Your task to perform on an android device: Open the map Image 0: 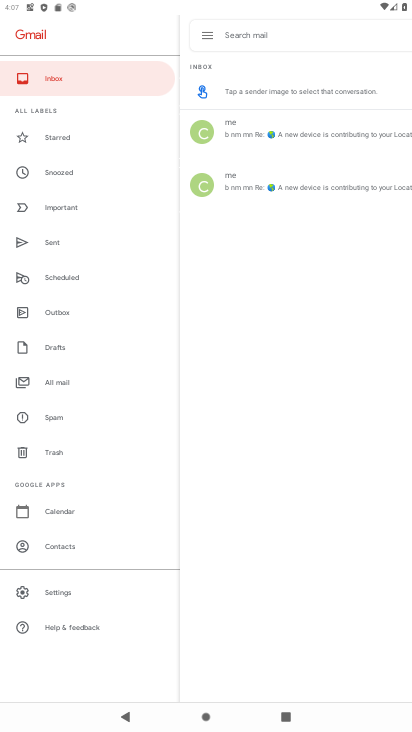
Step 0: press home button
Your task to perform on an android device: Open the map Image 1: 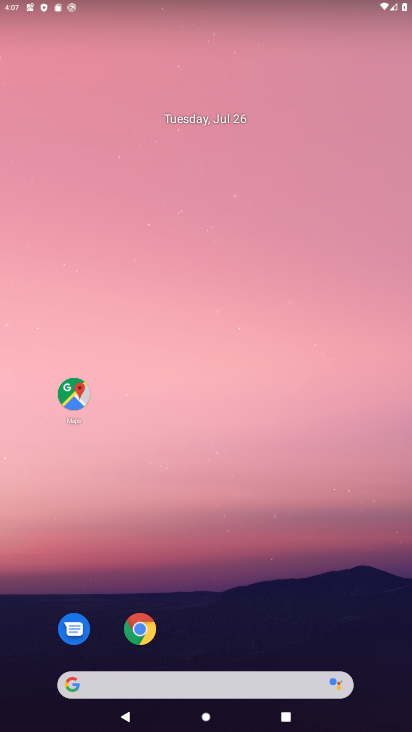
Step 1: click (74, 397)
Your task to perform on an android device: Open the map Image 2: 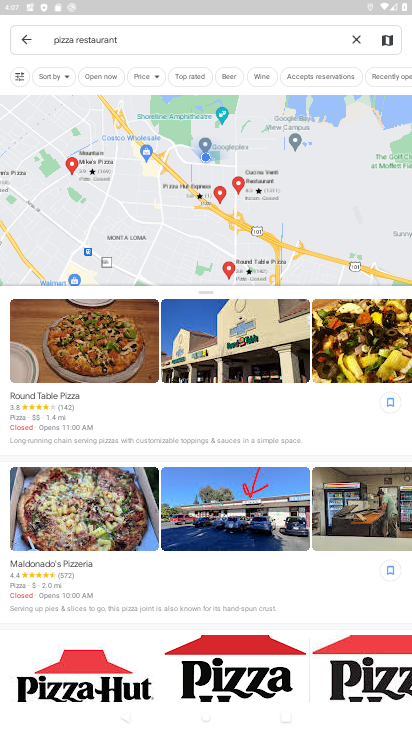
Step 2: task complete